Your task to perform on an android device: See recent photos Image 0: 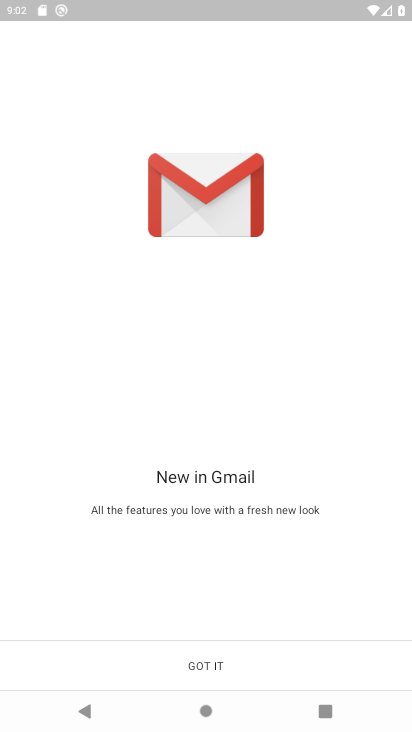
Step 0: click (197, 661)
Your task to perform on an android device: See recent photos Image 1: 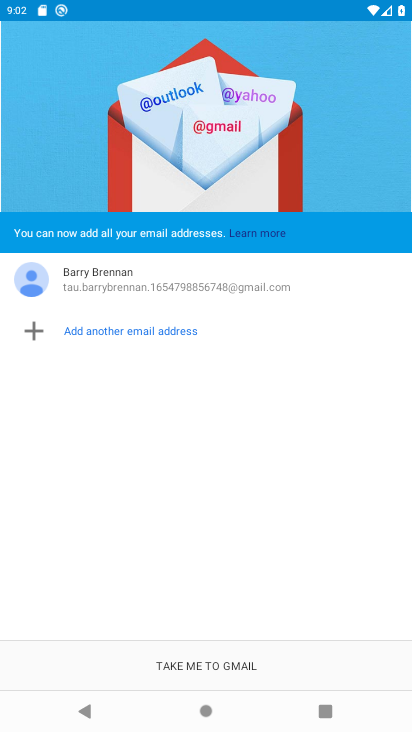
Step 1: press home button
Your task to perform on an android device: See recent photos Image 2: 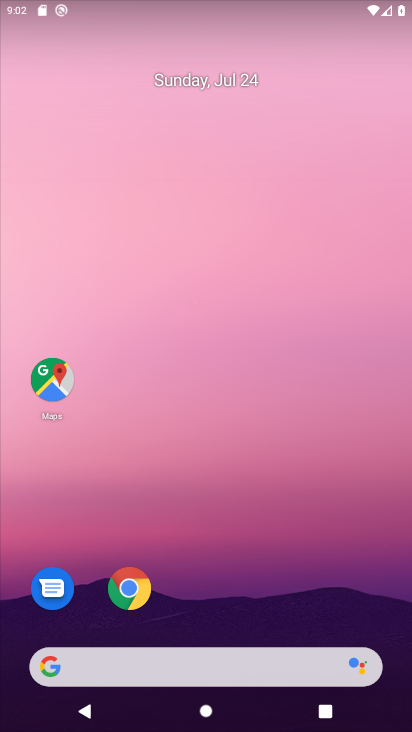
Step 2: drag from (385, 694) to (379, 153)
Your task to perform on an android device: See recent photos Image 3: 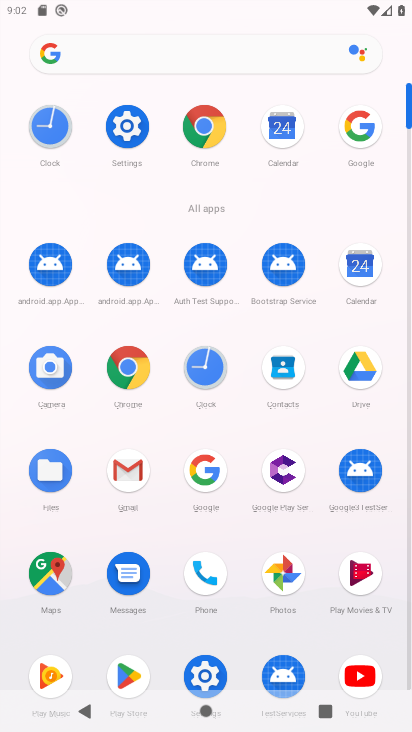
Step 3: click (285, 575)
Your task to perform on an android device: See recent photos Image 4: 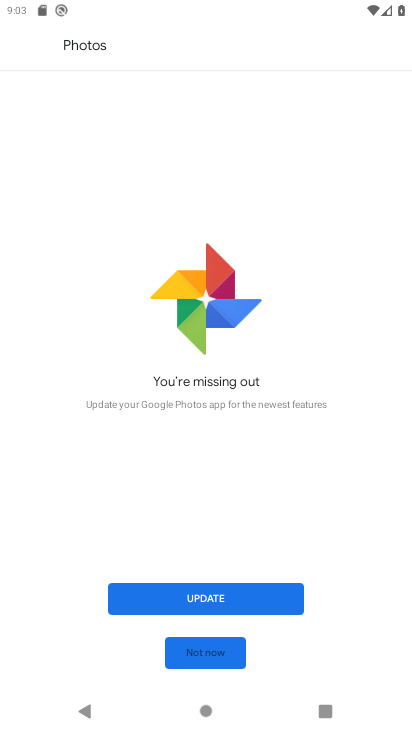
Step 4: click (228, 594)
Your task to perform on an android device: See recent photos Image 5: 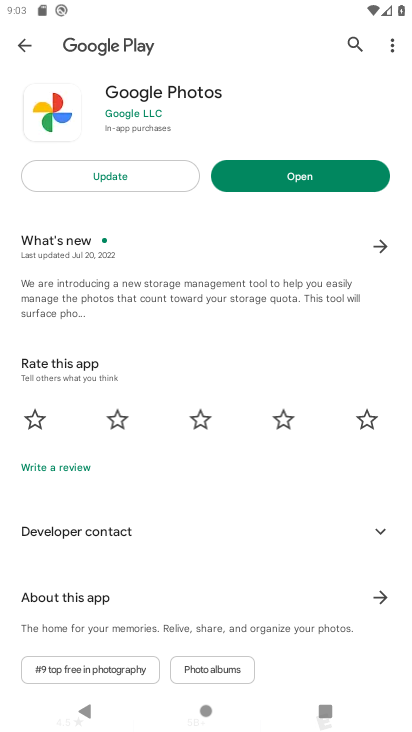
Step 5: click (137, 177)
Your task to perform on an android device: See recent photos Image 6: 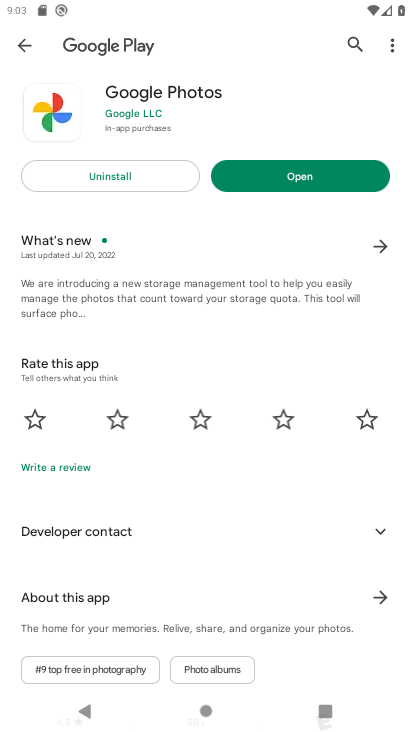
Step 6: click (265, 172)
Your task to perform on an android device: See recent photos Image 7: 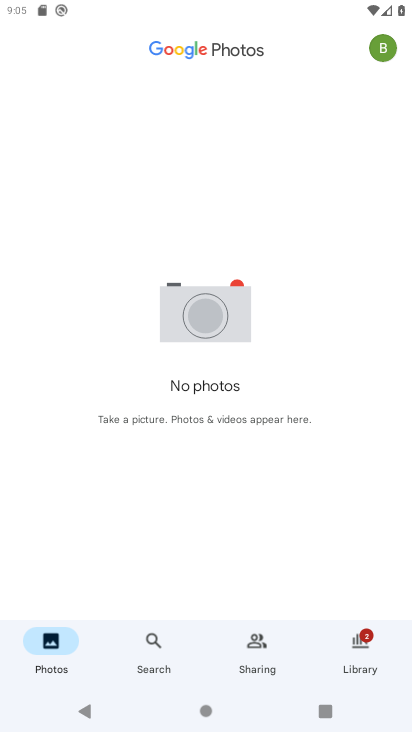
Step 7: task complete